Your task to perform on an android device: What's on my calendar today? Image 0: 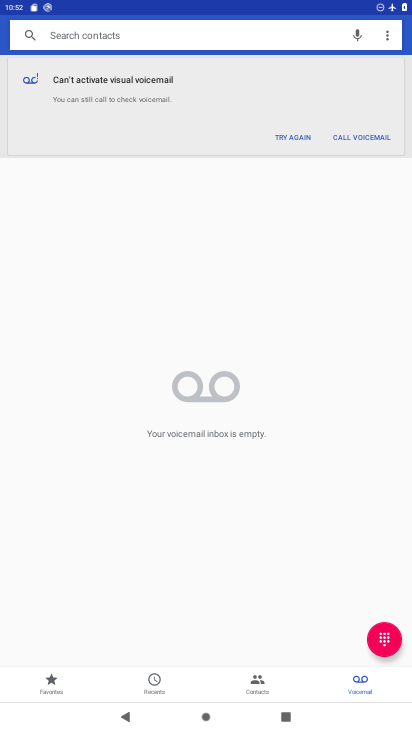
Step 0: press home button
Your task to perform on an android device: What's on my calendar today? Image 1: 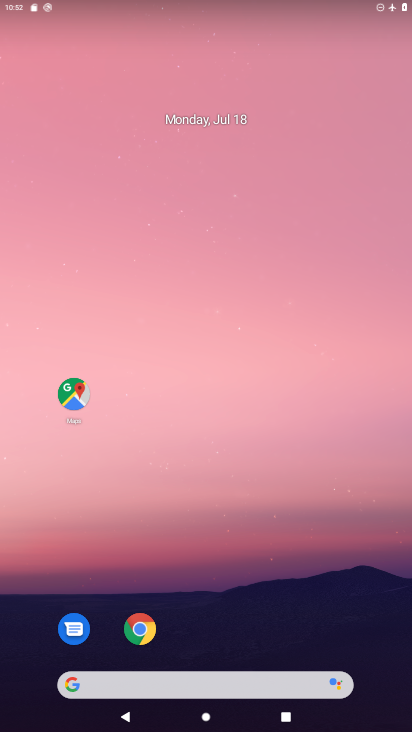
Step 1: drag from (271, 587) to (237, 125)
Your task to perform on an android device: What's on my calendar today? Image 2: 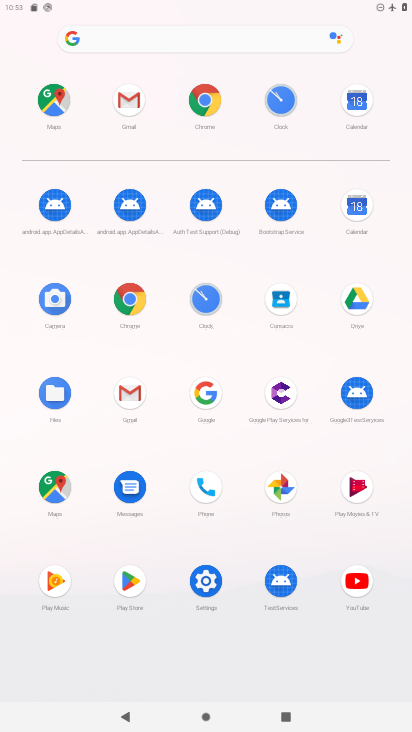
Step 2: click (365, 102)
Your task to perform on an android device: What's on my calendar today? Image 3: 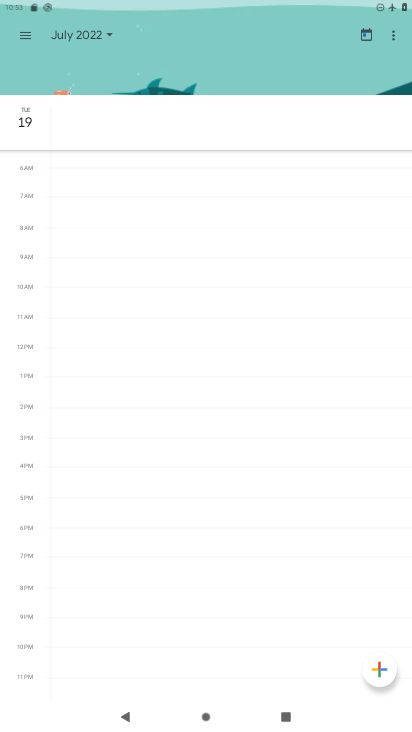
Step 3: task complete